Your task to perform on an android device: turn off wifi Image 0: 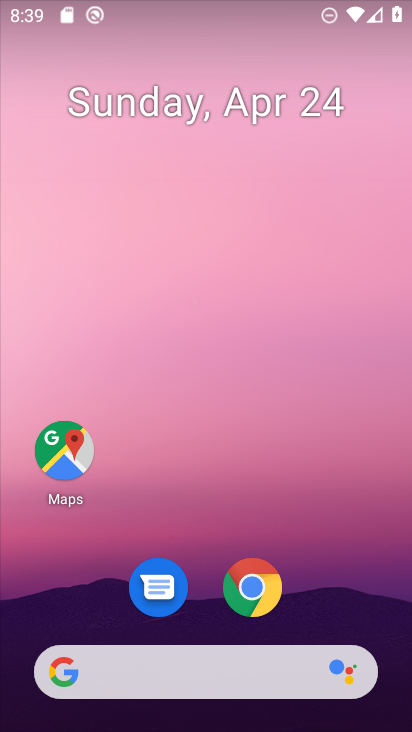
Step 0: drag from (362, 541) to (368, 105)
Your task to perform on an android device: turn off wifi Image 1: 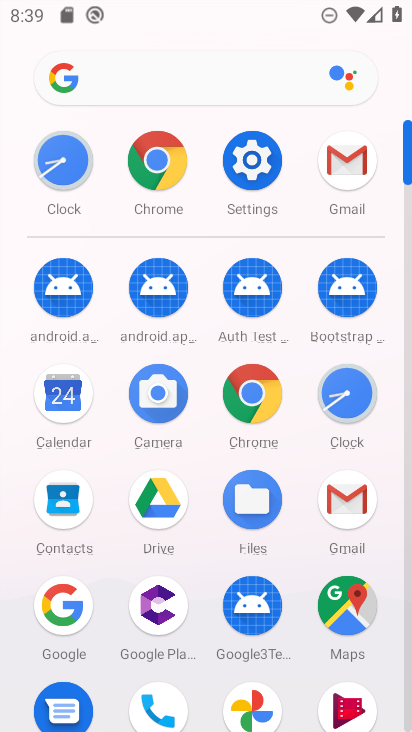
Step 1: click (263, 155)
Your task to perform on an android device: turn off wifi Image 2: 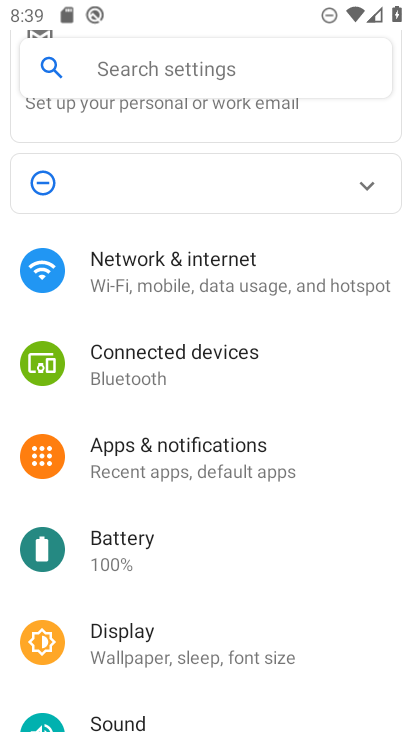
Step 2: click (239, 249)
Your task to perform on an android device: turn off wifi Image 3: 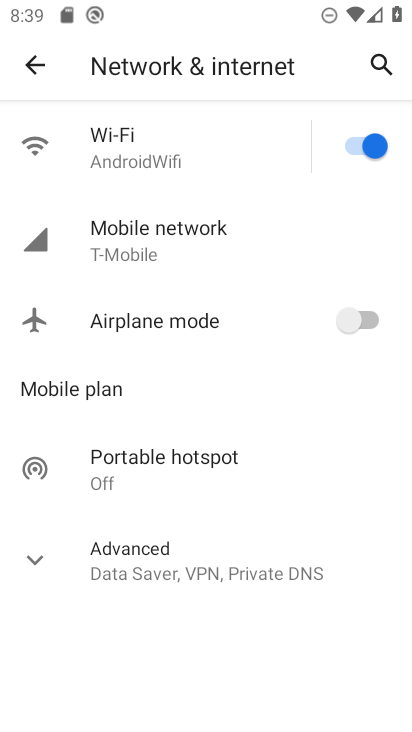
Step 3: click (353, 145)
Your task to perform on an android device: turn off wifi Image 4: 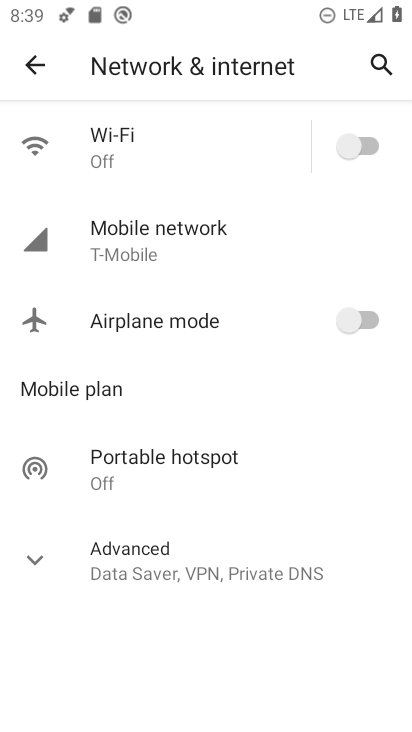
Step 4: task complete